Your task to perform on an android device: Open ESPN.com Image 0: 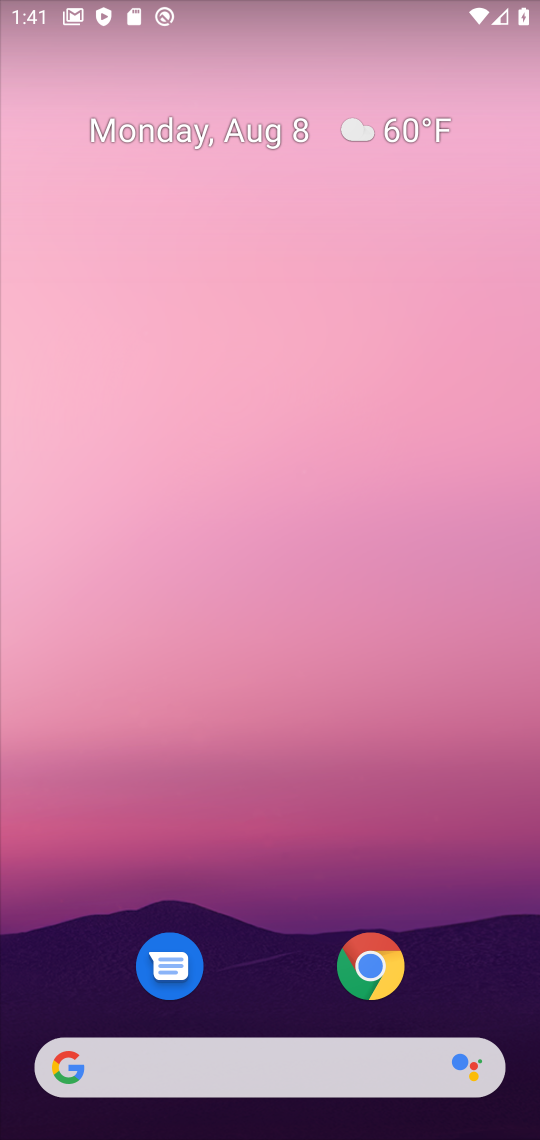
Step 0: click (374, 947)
Your task to perform on an android device: Open ESPN.com Image 1: 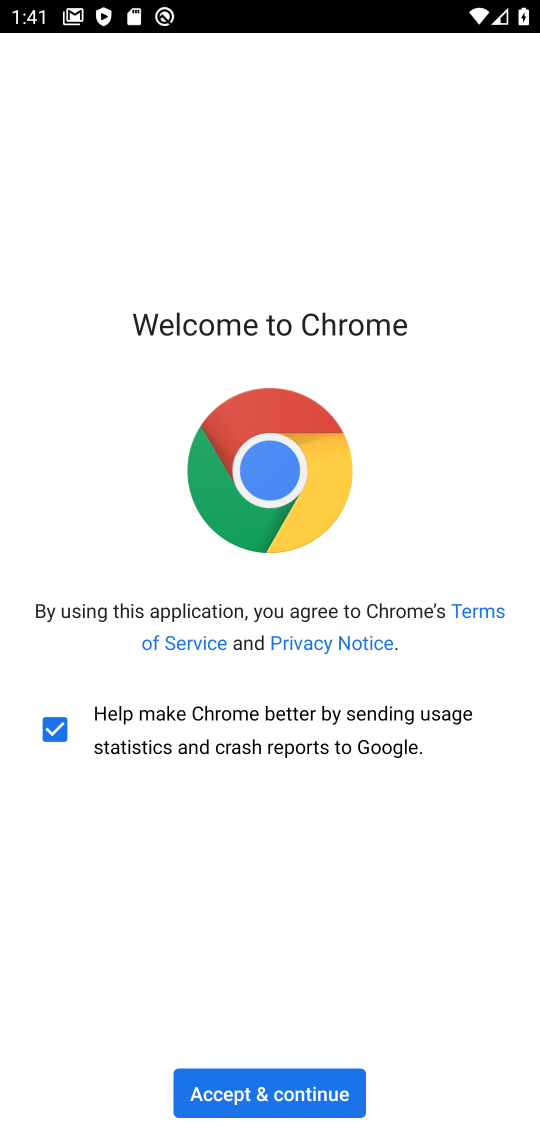
Step 1: click (247, 1096)
Your task to perform on an android device: Open ESPN.com Image 2: 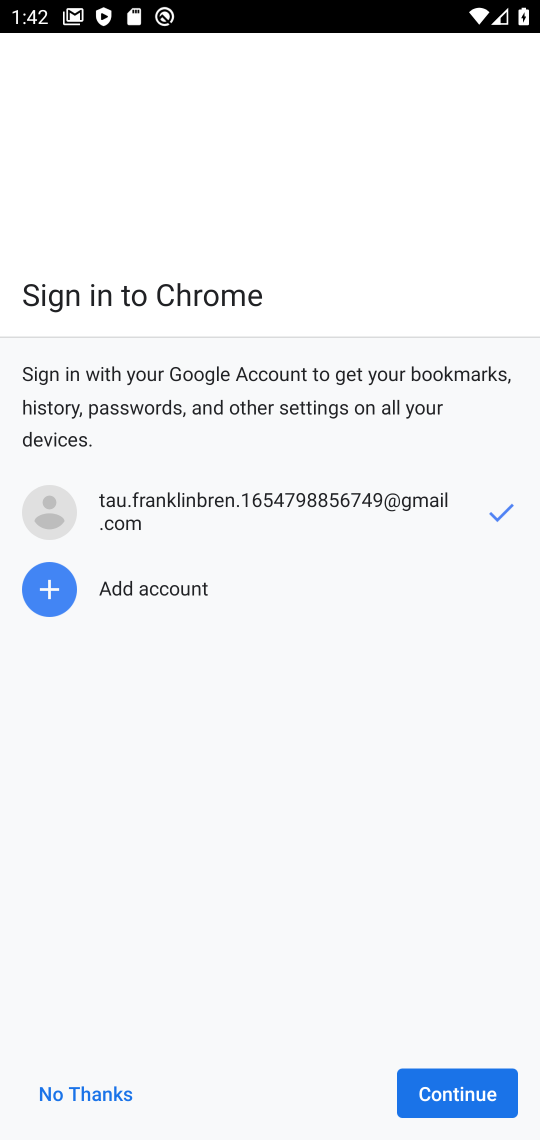
Step 2: click (445, 1084)
Your task to perform on an android device: Open ESPN.com Image 3: 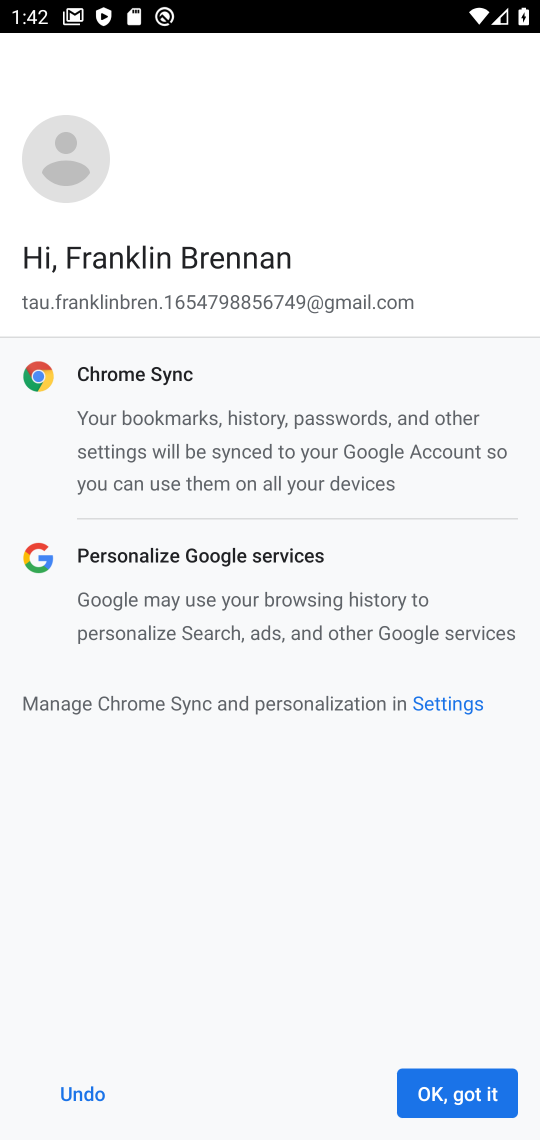
Step 3: click (445, 1084)
Your task to perform on an android device: Open ESPN.com Image 4: 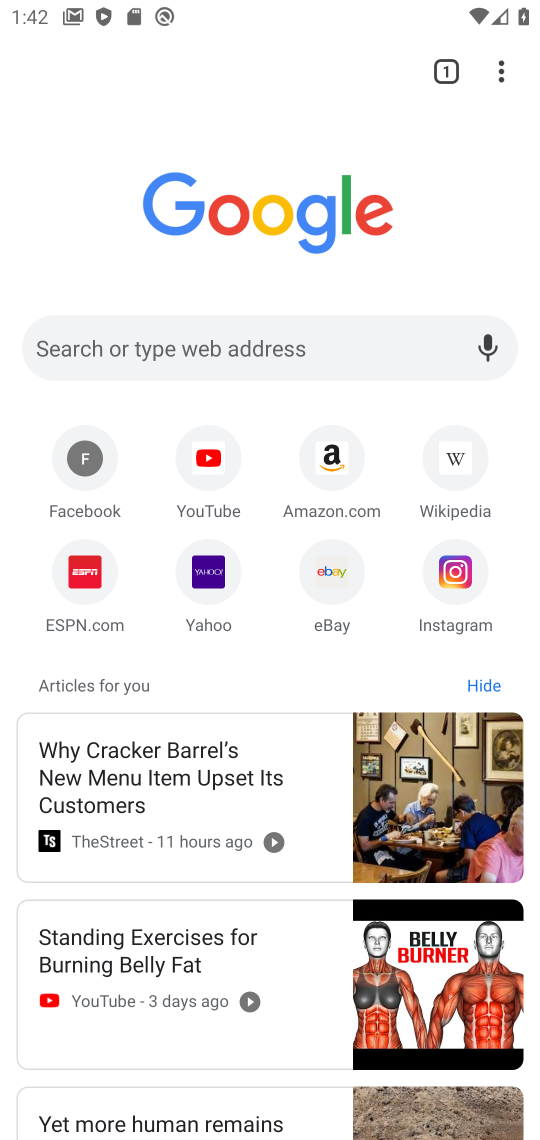
Step 4: click (74, 576)
Your task to perform on an android device: Open ESPN.com Image 5: 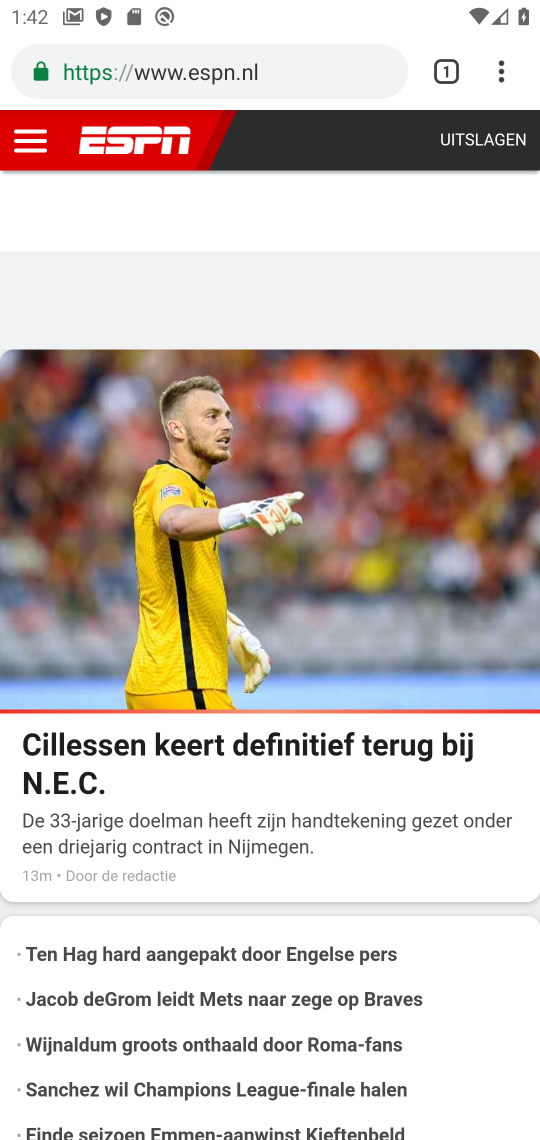
Step 5: task complete